Your task to perform on an android device: Open the phone app and click the voicemail tab. Image 0: 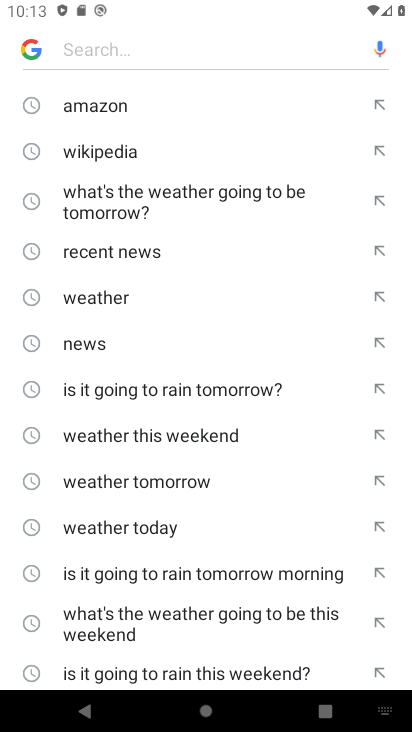
Step 0: press home button
Your task to perform on an android device: Open the phone app and click the voicemail tab. Image 1: 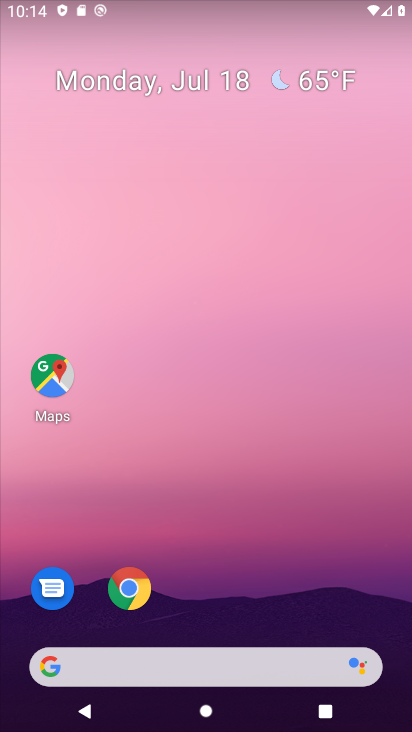
Step 1: drag from (270, 600) to (278, 53)
Your task to perform on an android device: Open the phone app and click the voicemail tab. Image 2: 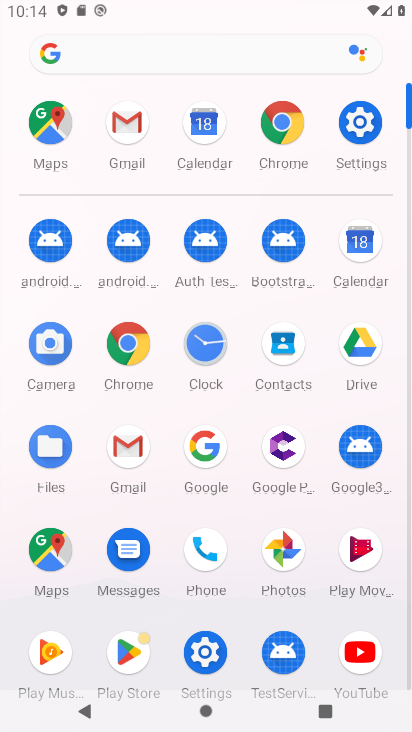
Step 2: click (198, 547)
Your task to perform on an android device: Open the phone app and click the voicemail tab. Image 3: 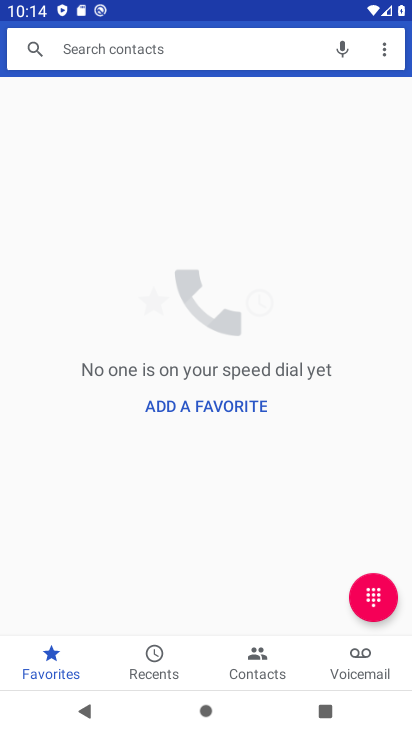
Step 3: click (349, 657)
Your task to perform on an android device: Open the phone app and click the voicemail tab. Image 4: 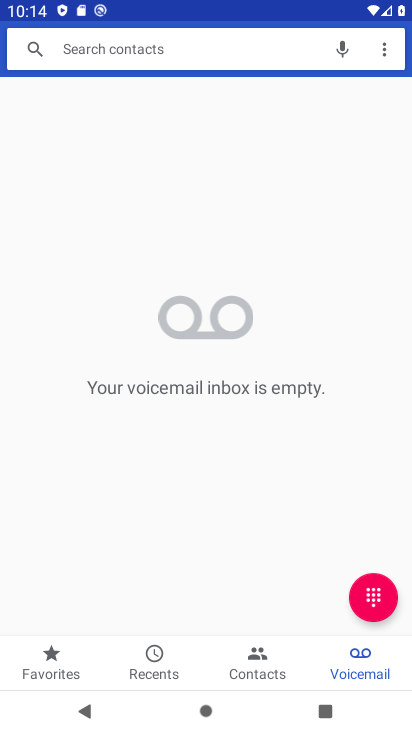
Step 4: task complete